Your task to perform on an android device: Is it going to rain tomorrow? Image 0: 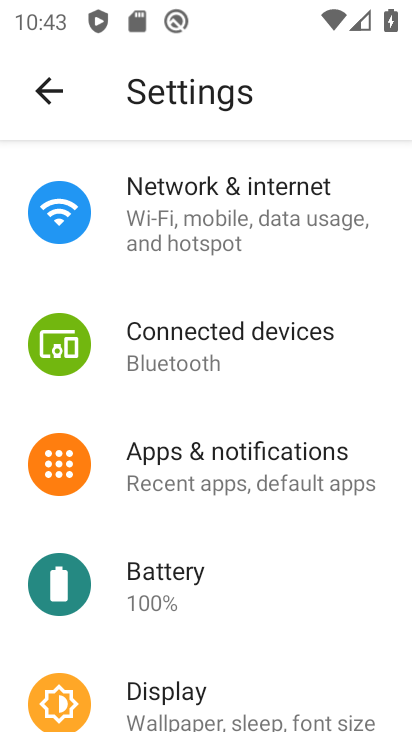
Step 0: press home button
Your task to perform on an android device: Is it going to rain tomorrow? Image 1: 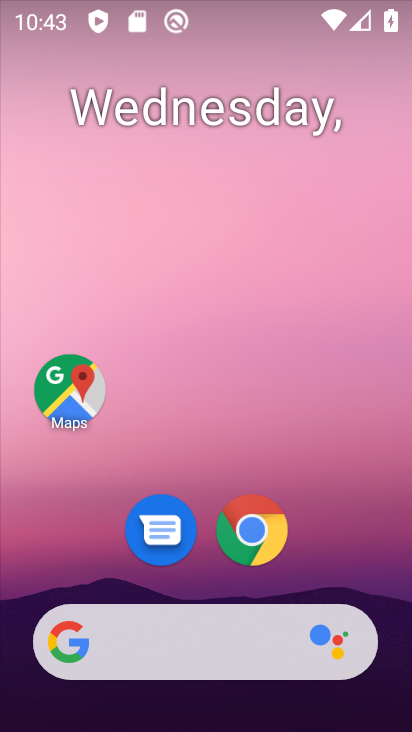
Step 1: click (236, 532)
Your task to perform on an android device: Is it going to rain tomorrow? Image 2: 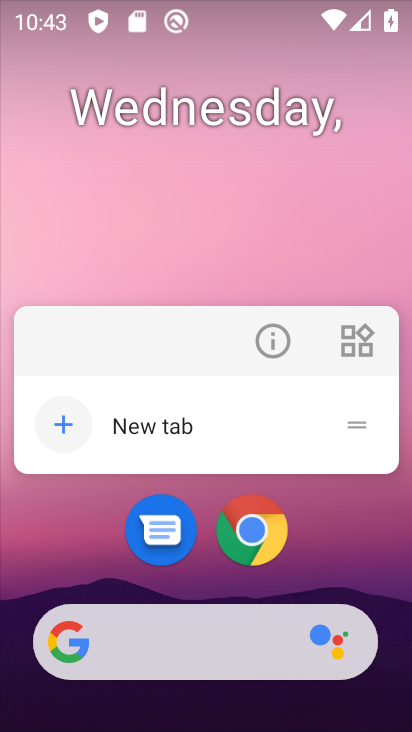
Step 2: click (245, 556)
Your task to perform on an android device: Is it going to rain tomorrow? Image 3: 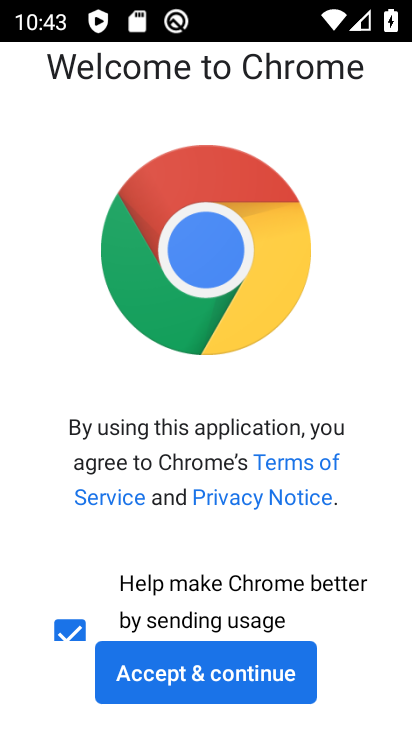
Step 3: click (205, 686)
Your task to perform on an android device: Is it going to rain tomorrow? Image 4: 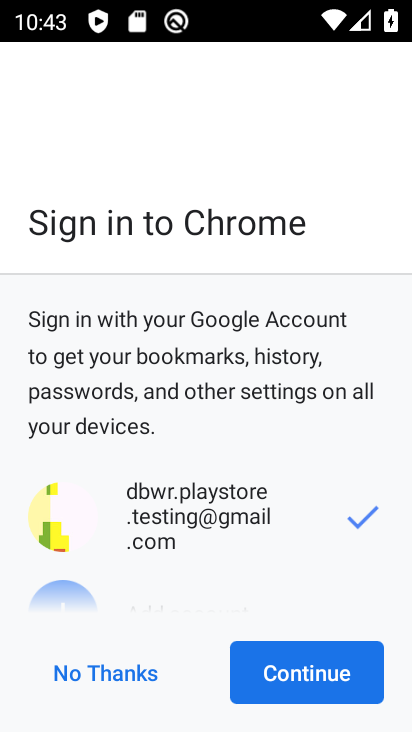
Step 4: click (299, 683)
Your task to perform on an android device: Is it going to rain tomorrow? Image 5: 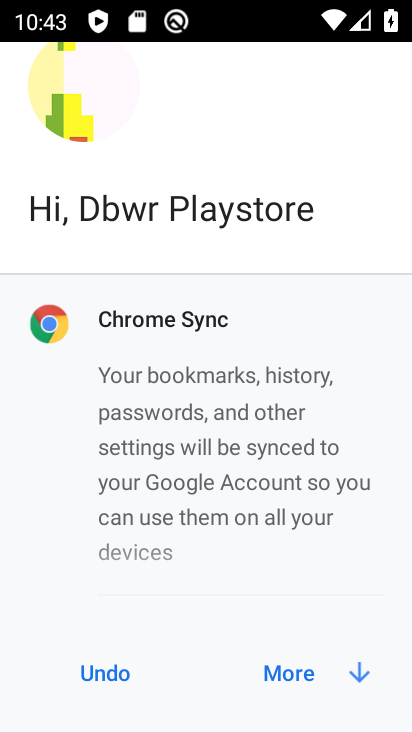
Step 5: click (305, 692)
Your task to perform on an android device: Is it going to rain tomorrow? Image 6: 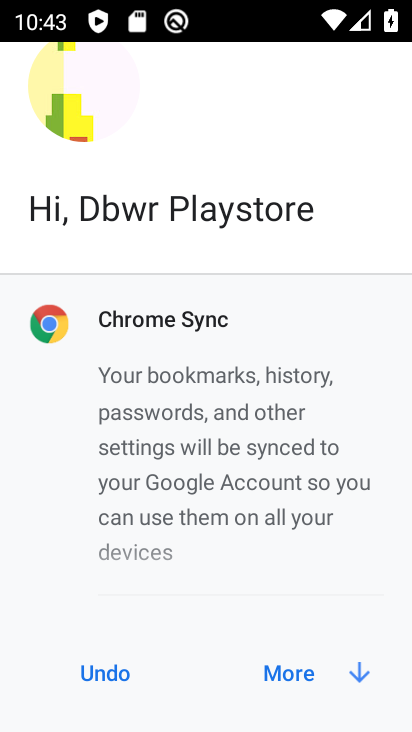
Step 6: click (305, 692)
Your task to perform on an android device: Is it going to rain tomorrow? Image 7: 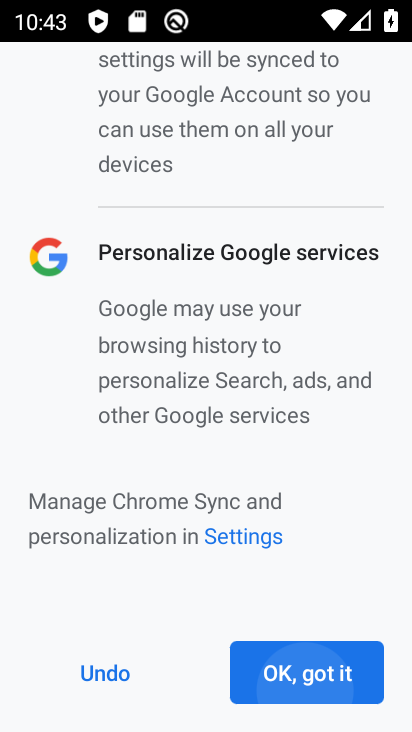
Step 7: click (305, 692)
Your task to perform on an android device: Is it going to rain tomorrow? Image 8: 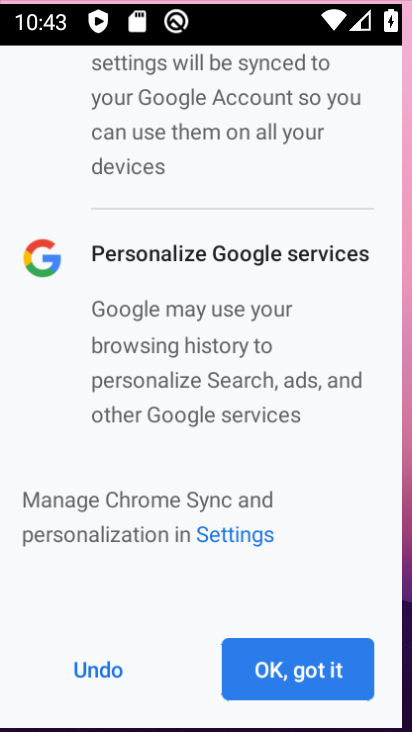
Step 8: click (306, 686)
Your task to perform on an android device: Is it going to rain tomorrow? Image 9: 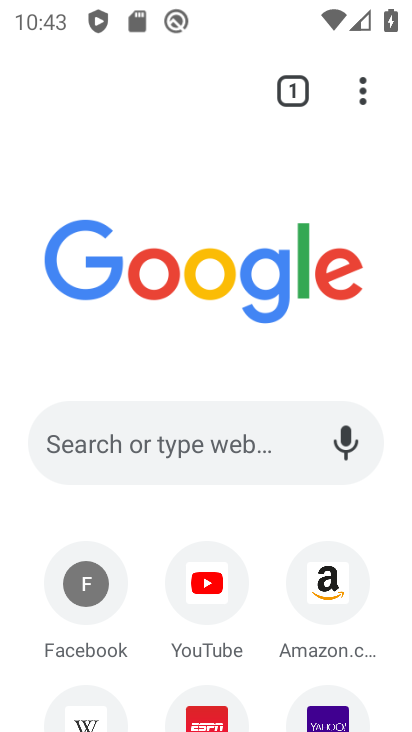
Step 9: click (233, 439)
Your task to perform on an android device: Is it going to rain tomorrow? Image 10: 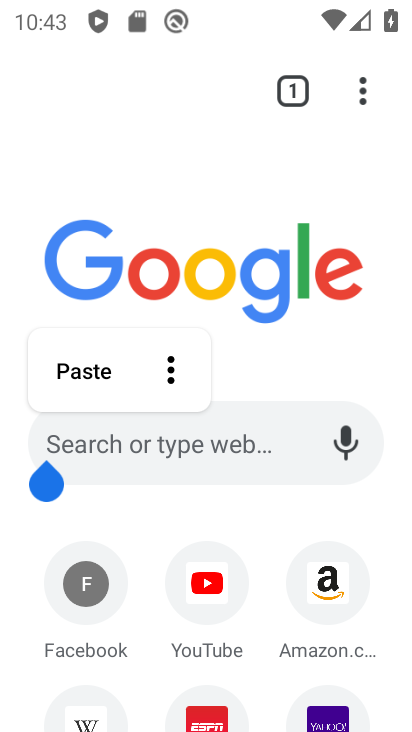
Step 10: click (231, 464)
Your task to perform on an android device: Is it going to rain tomorrow? Image 11: 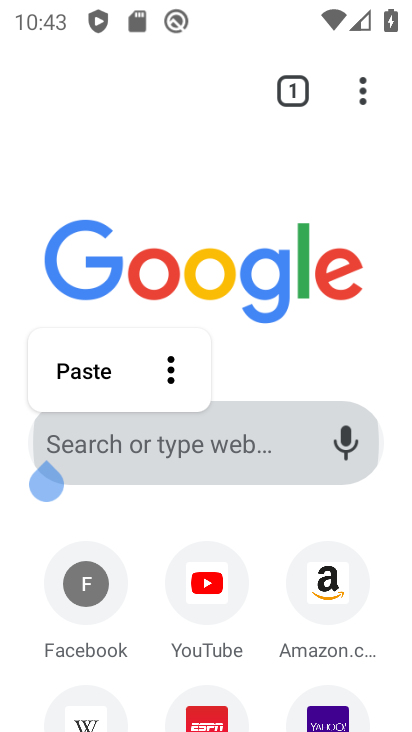
Step 11: click (231, 464)
Your task to perform on an android device: Is it going to rain tomorrow? Image 12: 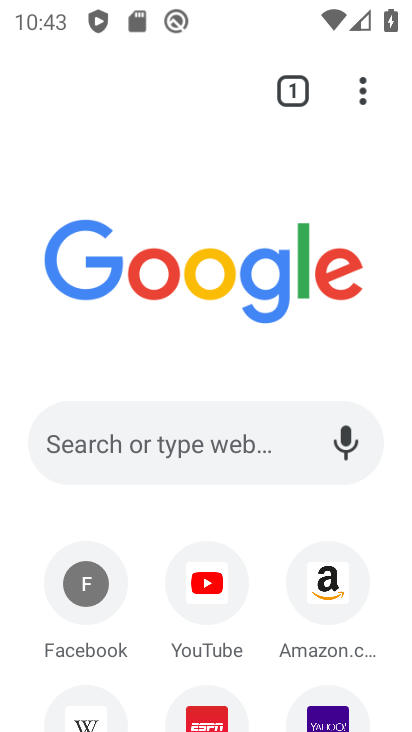
Step 12: click (118, 446)
Your task to perform on an android device: Is it going to rain tomorrow? Image 13: 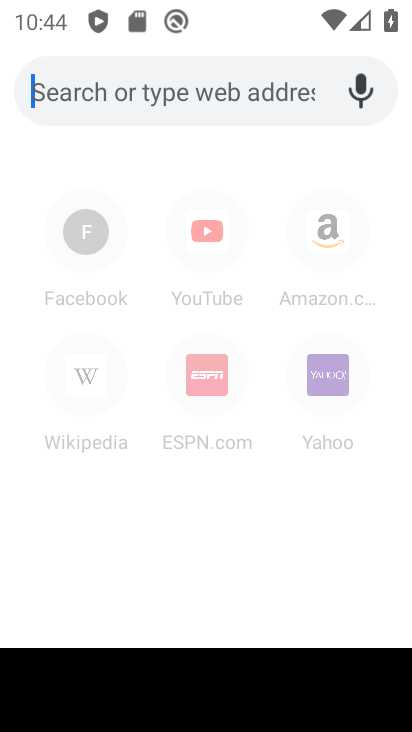
Step 13: type "Is it going to rain tomorrow?"
Your task to perform on an android device: Is it going to rain tomorrow? Image 14: 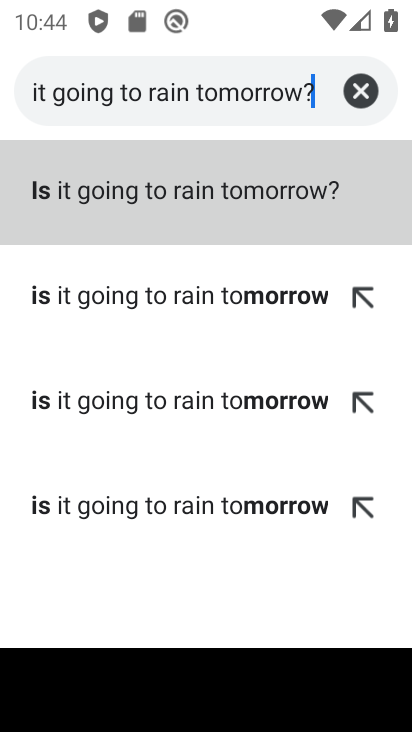
Step 14: click (93, 197)
Your task to perform on an android device: Is it going to rain tomorrow? Image 15: 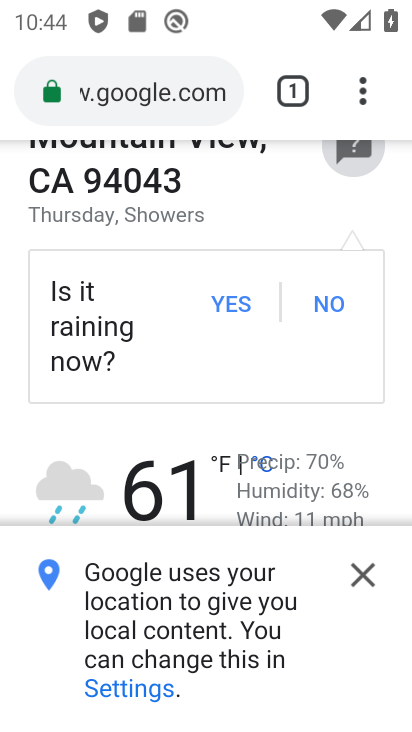
Step 15: task complete